Your task to perform on an android device: Open Yahoo.com Image 0: 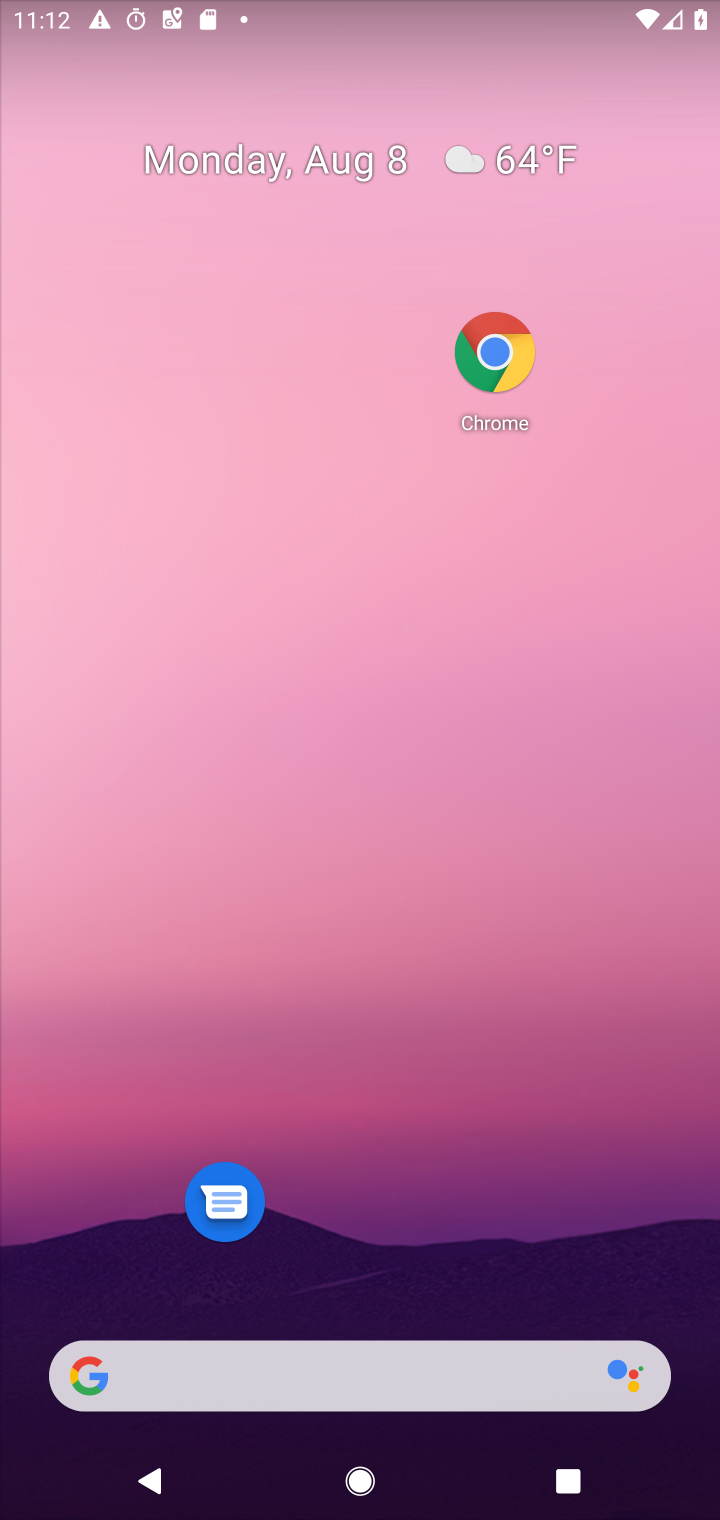
Step 0: drag from (388, 1372) to (370, 51)
Your task to perform on an android device: Open Yahoo.com Image 1: 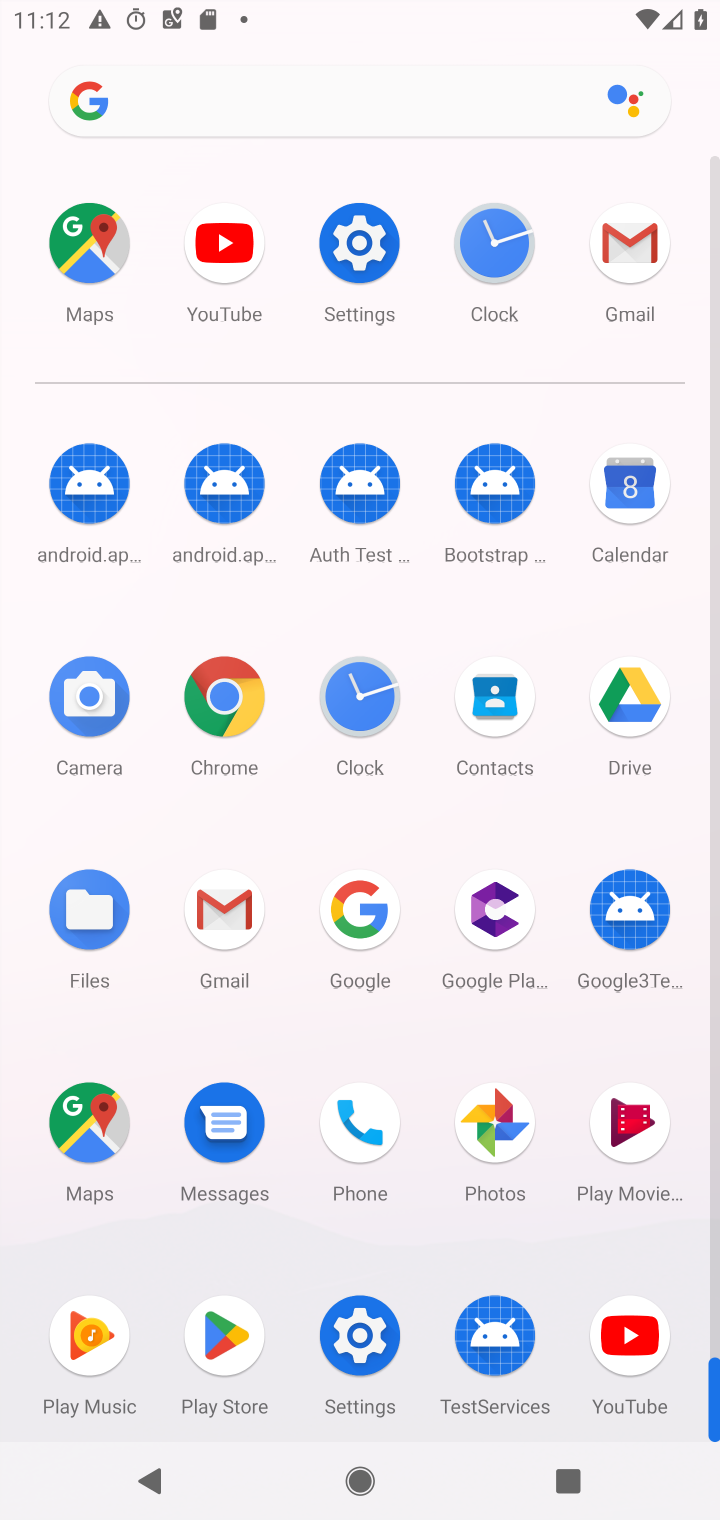
Step 1: click (248, 734)
Your task to perform on an android device: Open Yahoo.com Image 2: 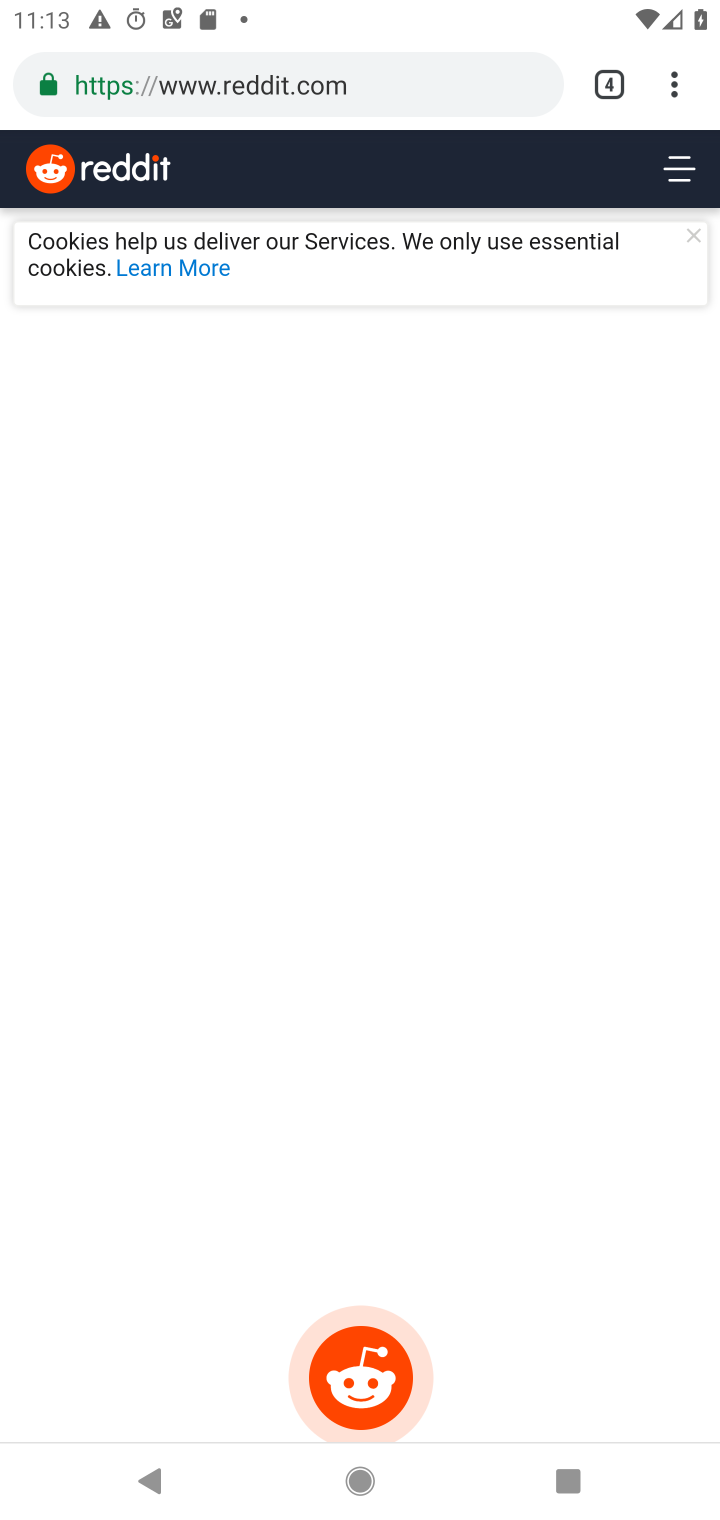
Step 2: click (378, 99)
Your task to perform on an android device: Open Yahoo.com Image 3: 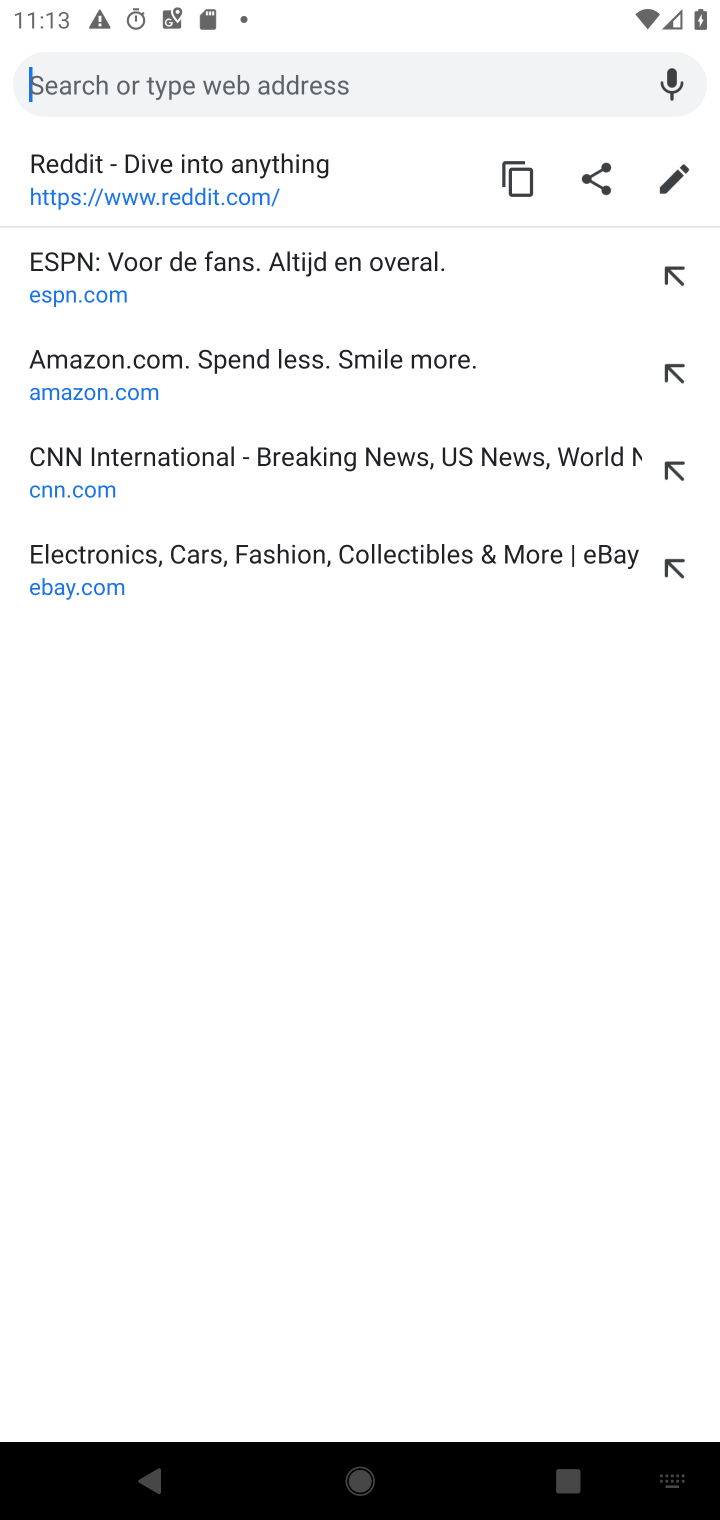
Step 3: type "yahoo"
Your task to perform on an android device: Open Yahoo.com Image 4: 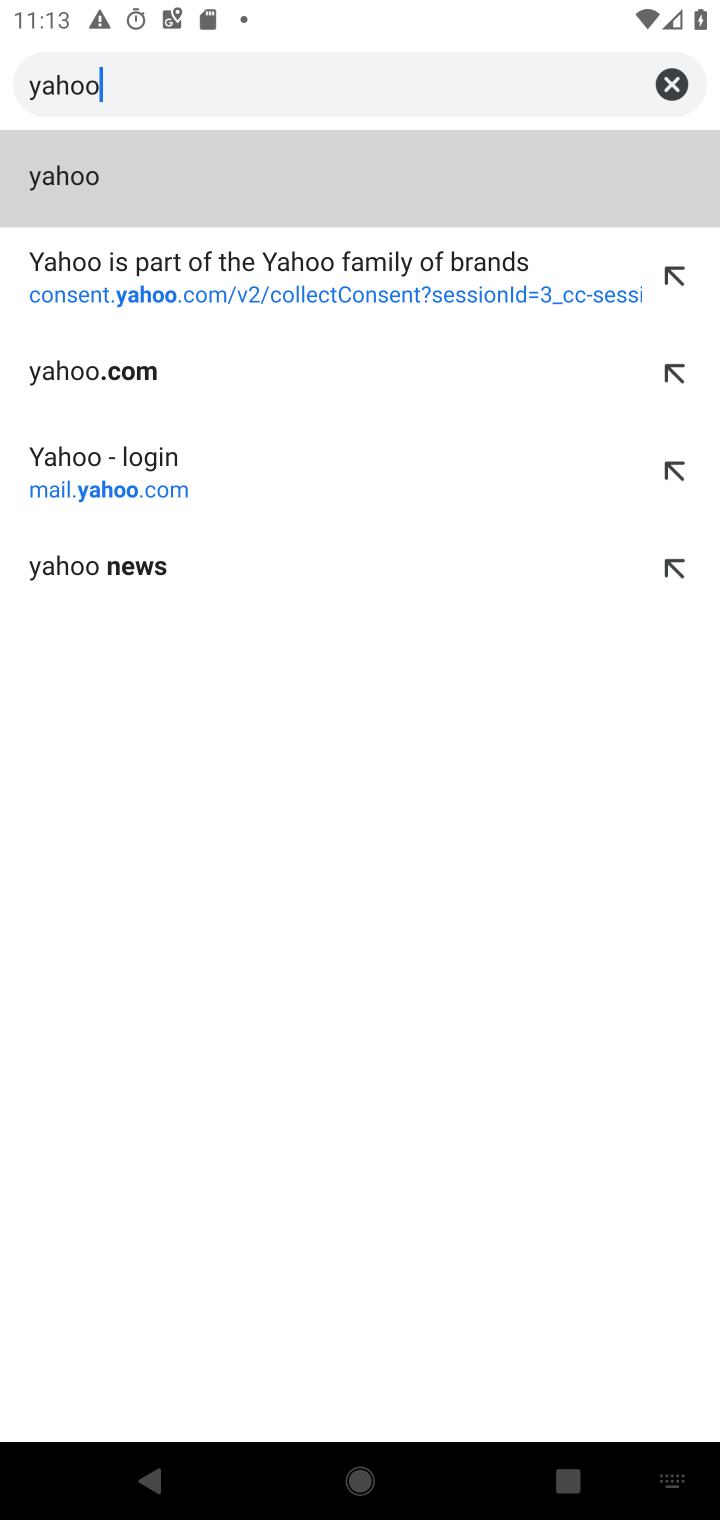
Step 4: click (204, 459)
Your task to perform on an android device: Open Yahoo.com Image 5: 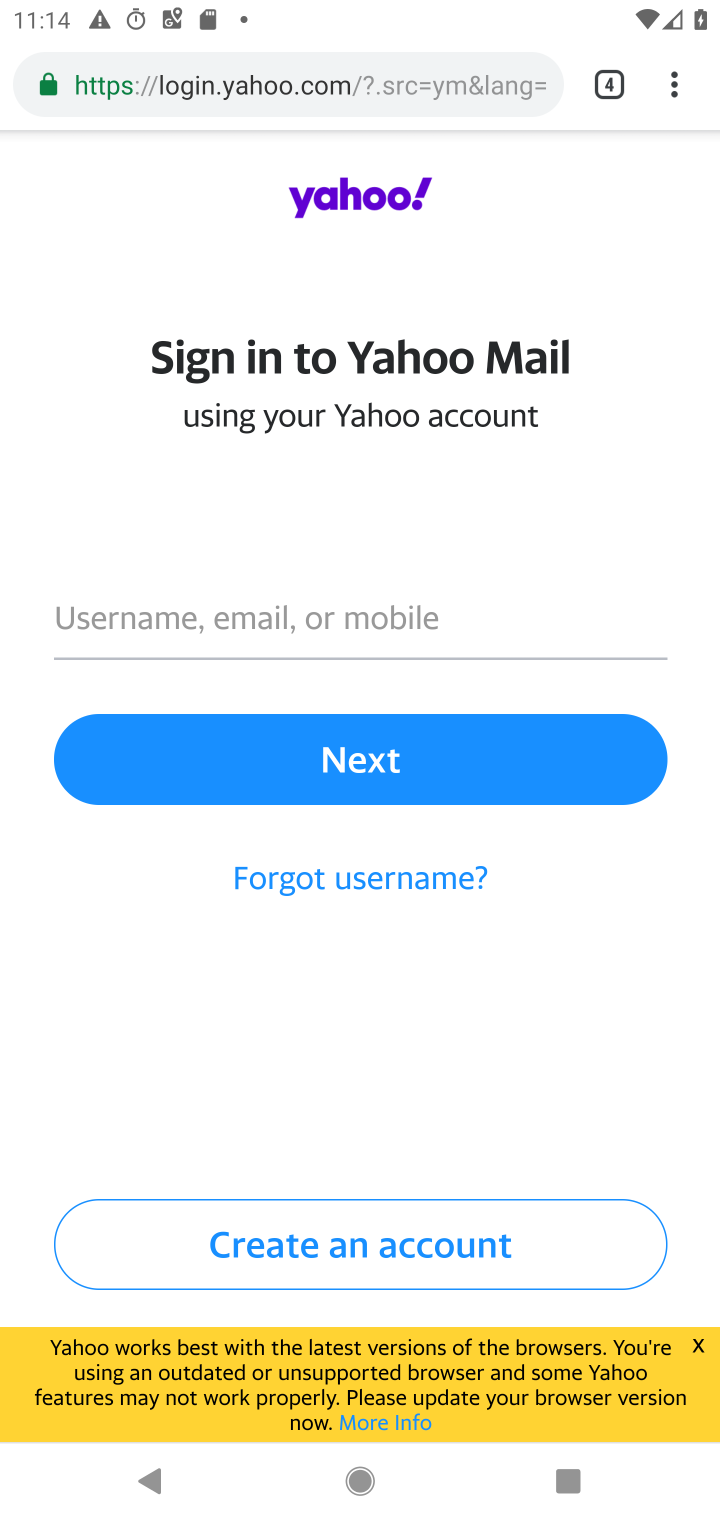
Step 5: task complete